Your task to perform on an android device: Open Chrome and go to the settings page Image 0: 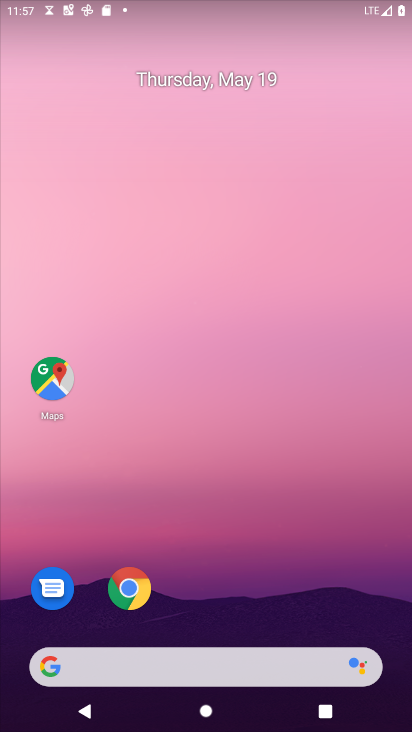
Step 0: drag from (312, 494) to (189, 38)
Your task to perform on an android device: Open Chrome and go to the settings page Image 1: 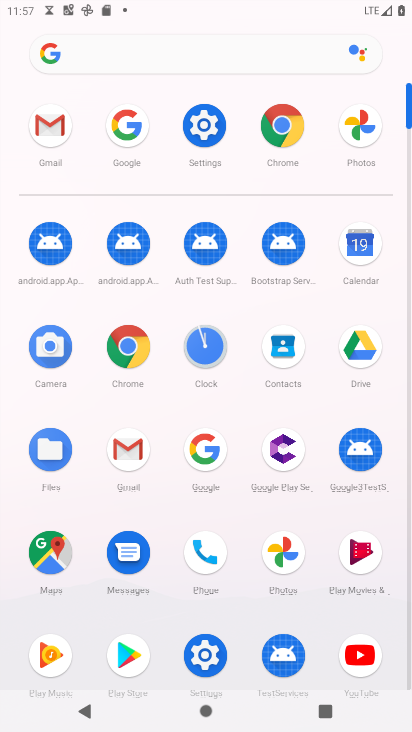
Step 1: click (132, 346)
Your task to perform on an android device: Open Chrome and go to the settings page Image 2: 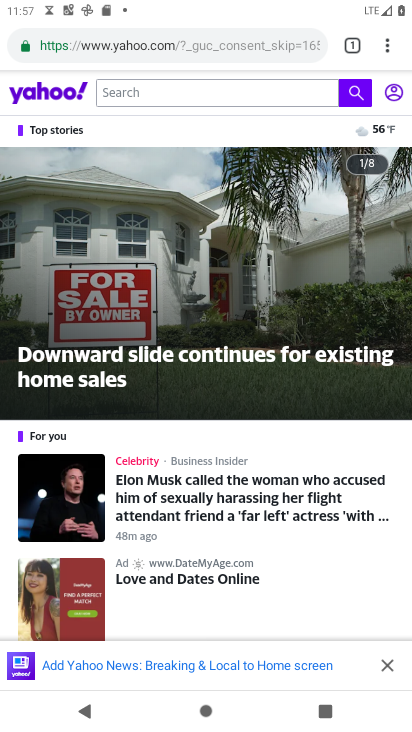
Step 2: click (381, 50)
Your task to perform on an android device: Open Chrome and go to the settings page Image 3: 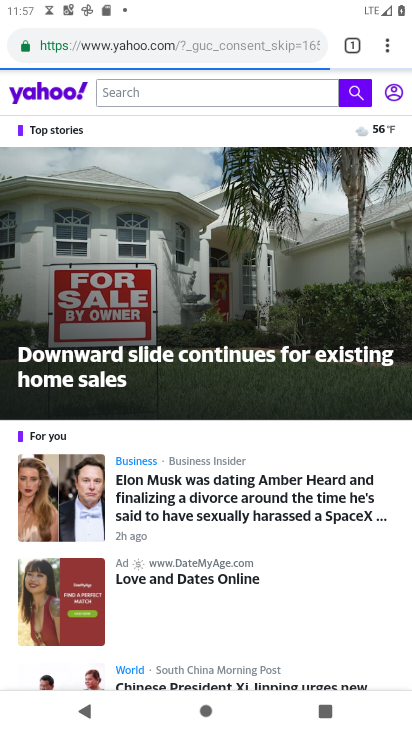
Step 3: click (380, 38)
Your task to perform on an android device: Open Chrome and go to the settings page Image 4: 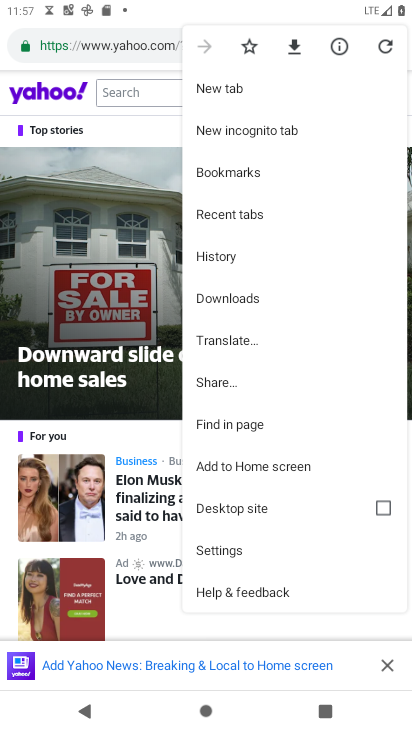
Step 4: click (260, 559)
Your task to perform on an android device: Open Chrome and go to the settings page Image 5: 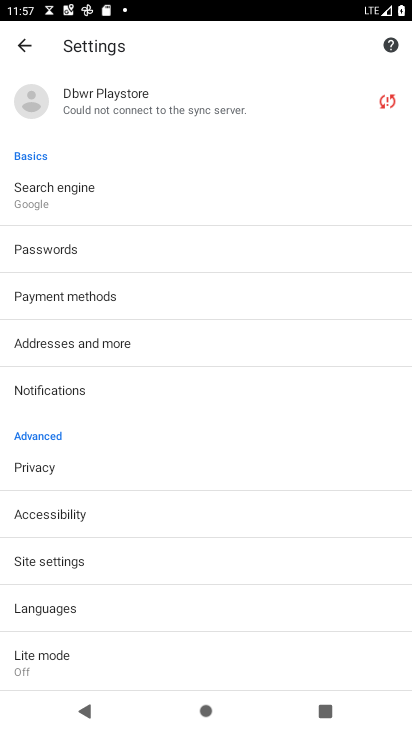
Step 5: task complete